Your task to perform on an android device: move an email to a new category in the gmail app Image 0: 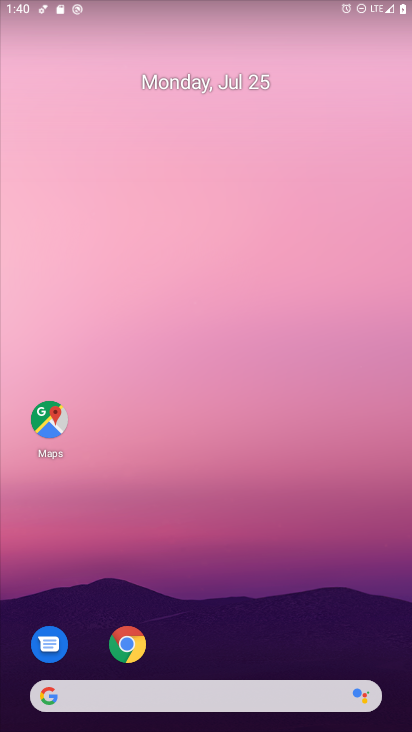
Step 0: drag from (274, 661) to (316, 6)
Your task to perform on an android device: move an email to a new category in the gmail app Image 1: 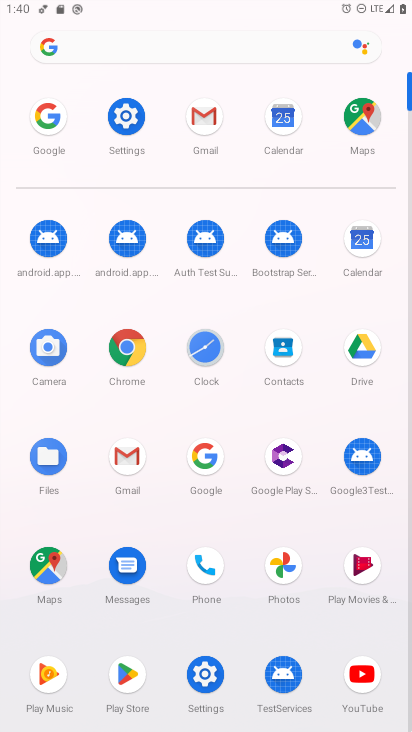
Step 1: click (125, 455)
Your task to perform on an android device: move an email to a new category in the gmail app Image 2: 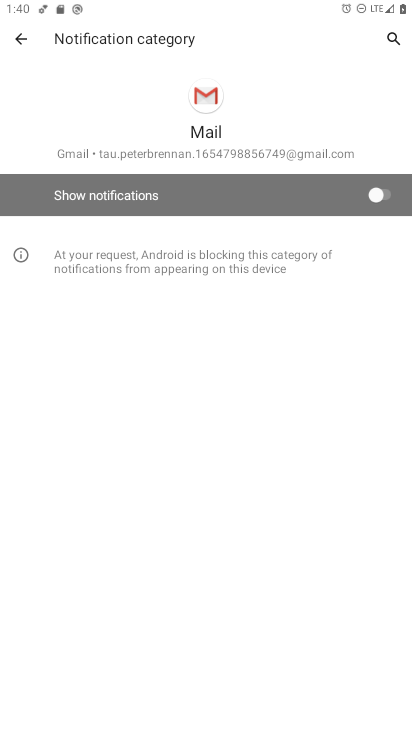
Step 2: click (19, 37)
Your task to perform on an android device: move an email to a new category in the gmail app Image 3: 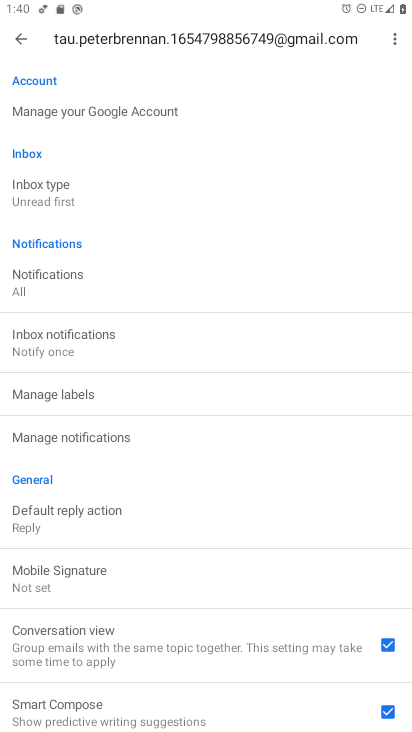
Step 3: click (28, 38)
Your task to perform on an android device: move an email to a new category in the gmail app Image 4: 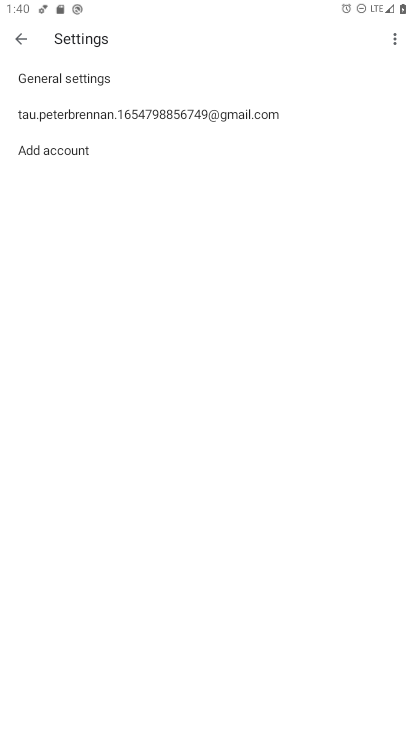
Step 4: click (20, 36)
Your task to perform on an android device: move an email to a new category in the gmail app Image 5: 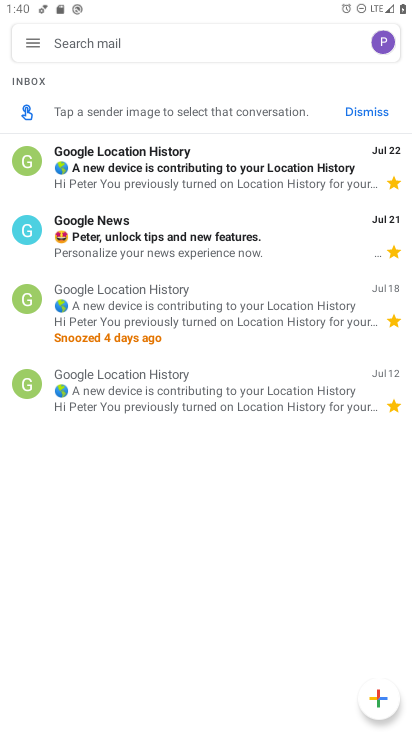
Step 5: click (130, 153)
Your task to perform on an android device: move an email to a new category in the gmail app Image 6: 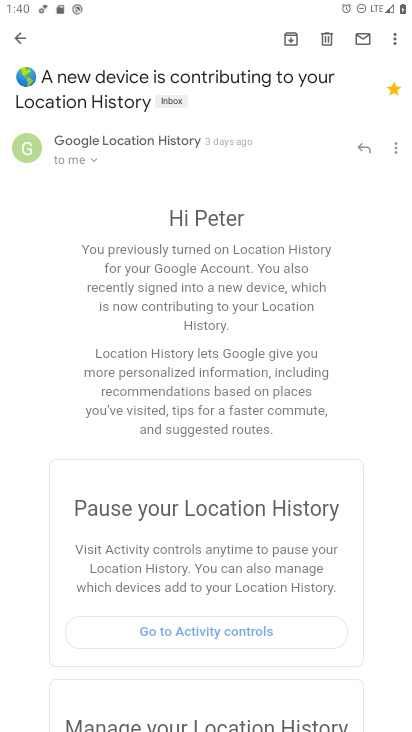
Step 6: click (392, 46)
Your task to perform on an android device: move an email to a new category in the gmail app Image 7: 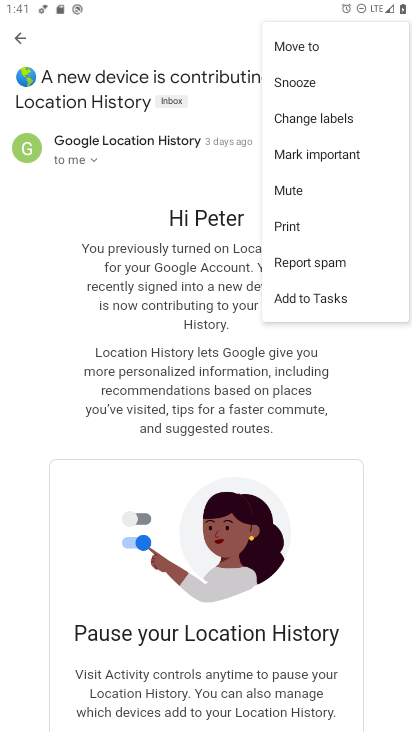
Step 7: click (303, 157)
Your task to perform on an android device: move an email to a new category in the gmail app Image 8: 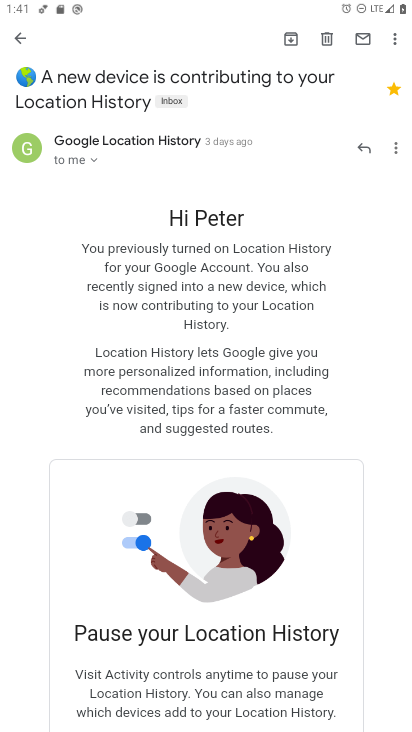
Step 8: task complete